Your task to perform on an android device: toggle sleep mode Image 0: 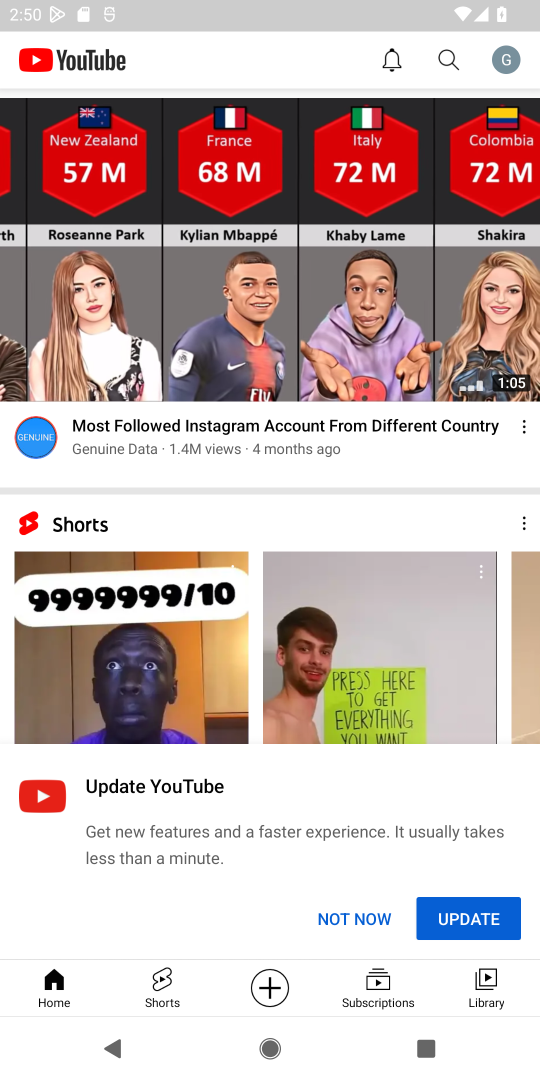
Step 0: press home button
Your task to perform on an android device: toggle sleep mode Image 1: 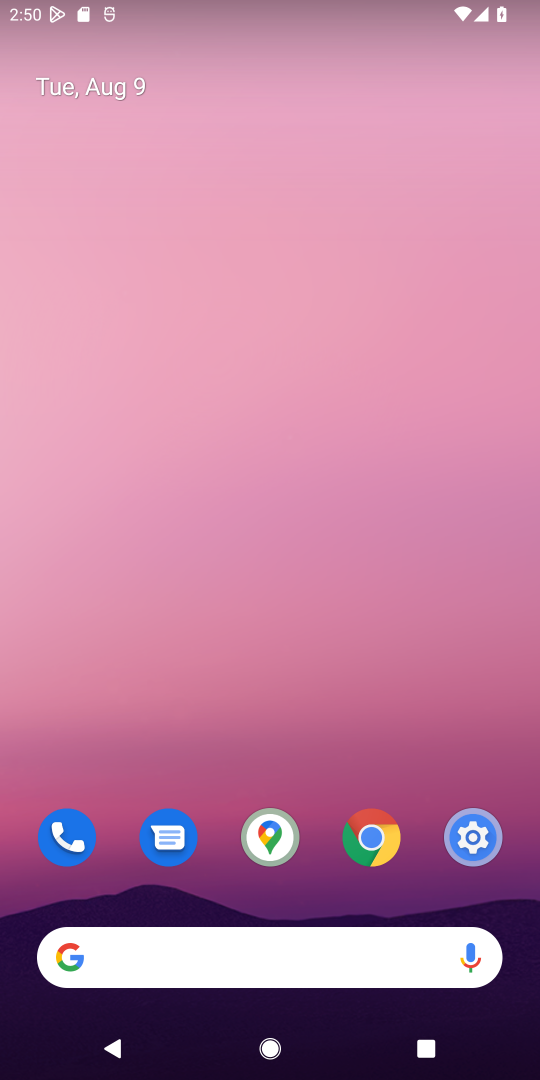
Step 1: drag from (151, 934) to (131, 257)
Your task to perform on an android device: toggle sleep mode Image 2: 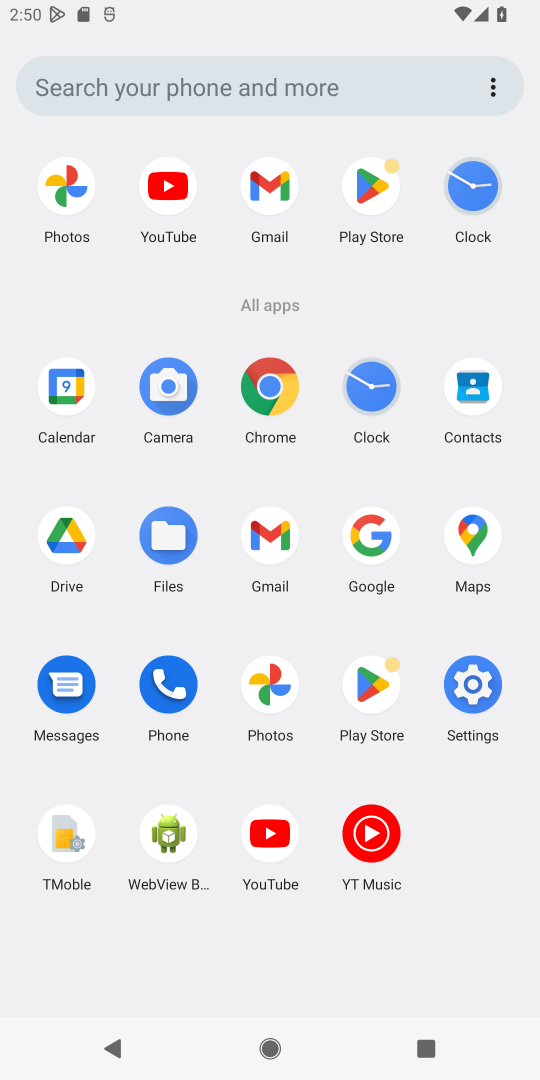
Step 2: click (463, 682)
Your task to perform on an android device: toggle sleep mode Image 3: 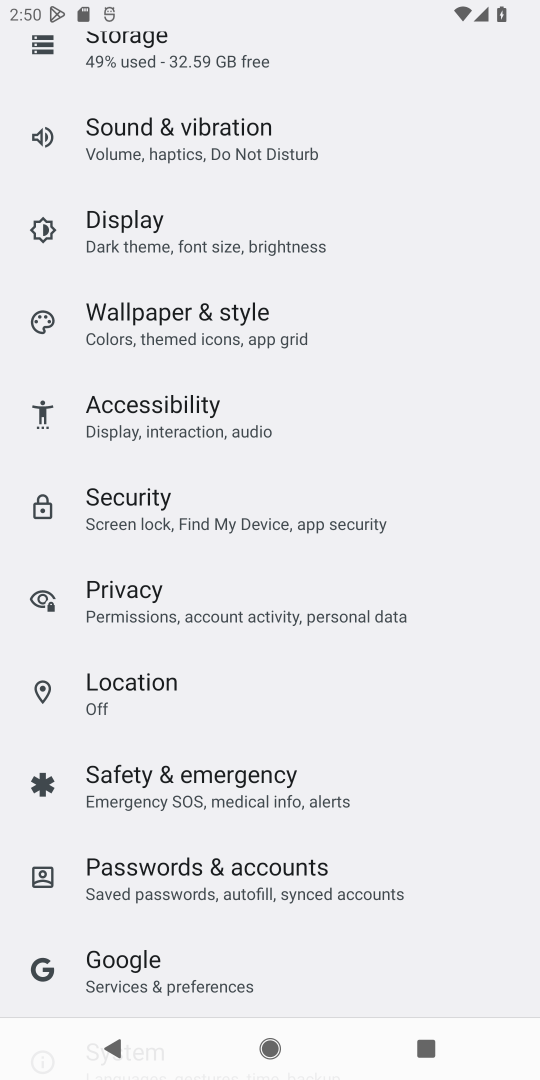
Step 3: task complete